Your task to perform on an android device: How much does a 3 bedroom apartment rent for in Chicago? Image 0: 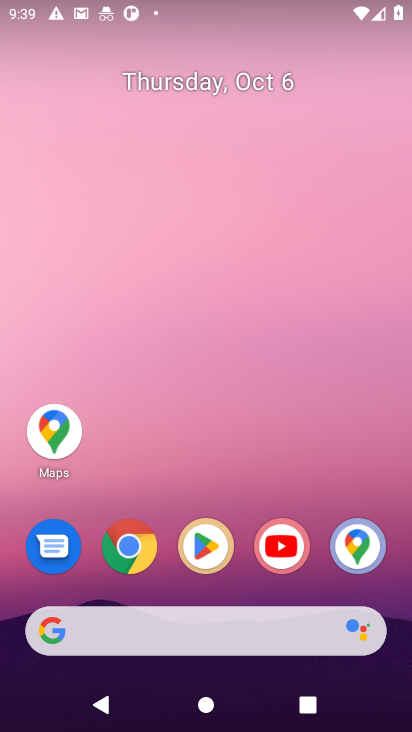
Step 0: click (127, 549)
Your task to perform on an android device: How much does a 3 bedroom apartment rent for in Chicago? Image 1: 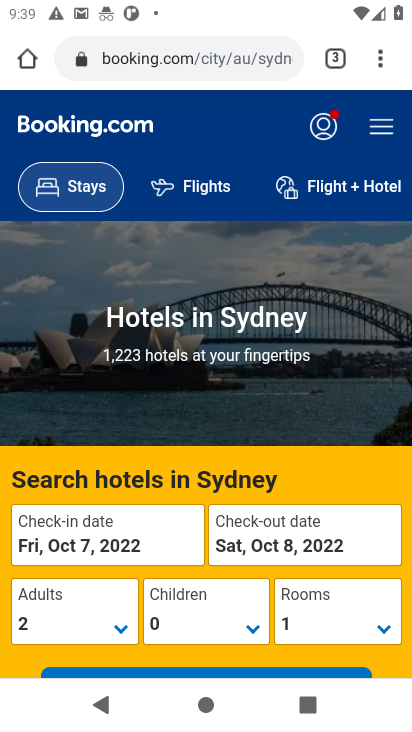
Step 1: drag from (144, 573) to (167, 187)
Your task to perform on an android device: How much does a 3 bedroom apartment rent for in Chicago? Image 2: 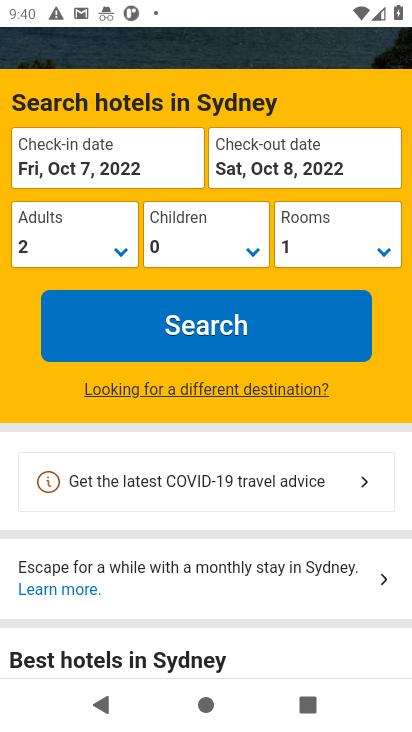
Step 2: drag from (187, 230) to (196, 507)
Your task to perform on an android device: How much does a 3 bedroom apartment rent for in Chicago? Image 3: 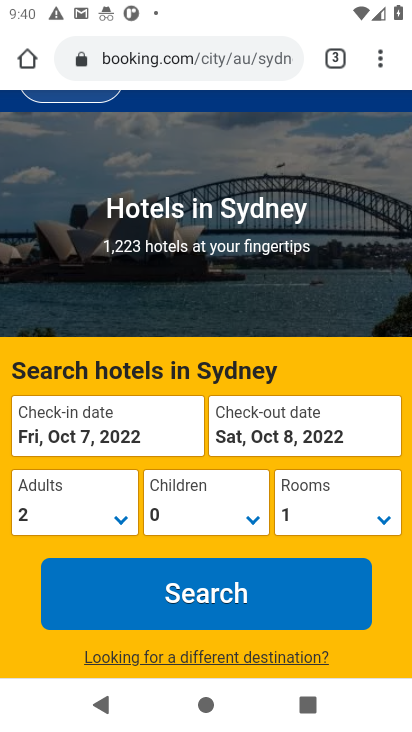
Step 3: drag from (304, 244) to (283, 508)
Your task to perform on an android device: How much does a 3 bedroom apartment rent for in Chicago? Image 4: 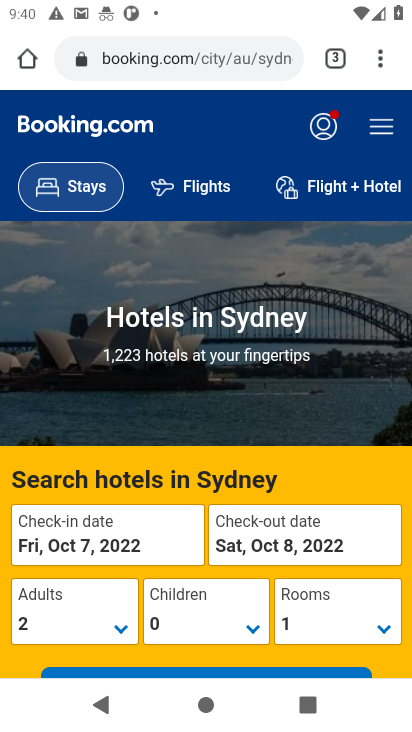
Step 4: click (226, 50)
Your task to perform on an android device: How much does a 3 bedroom apartment rent for in Chicago? Image 5: 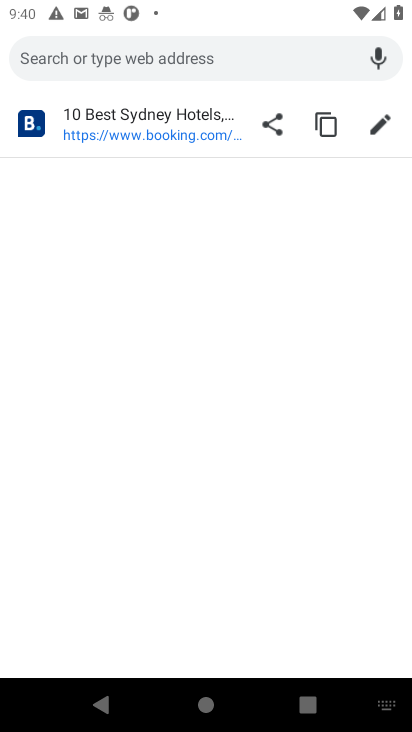
Step 5: type "How much does a 3 bedroom apartment rent for in Chicago?"
Your task to perform on an android device: How much does a 3 bedroom apartment rent for in Chicago? Image 6: 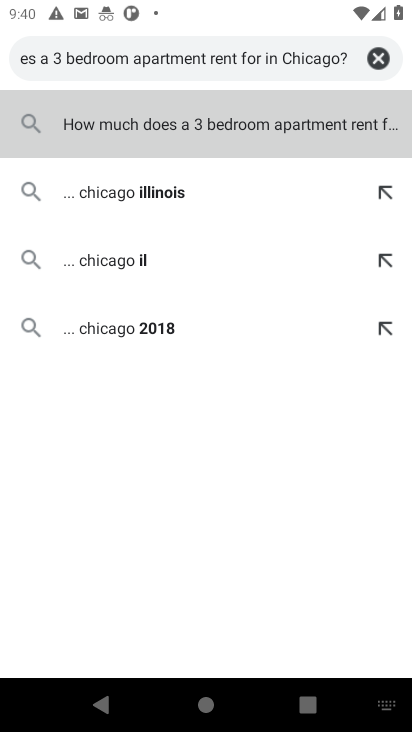
Step 6: click (130, 126)
Your task to perform on an android device: How much does a 3 bedroom apartment rent for in Chicago? Image 7: 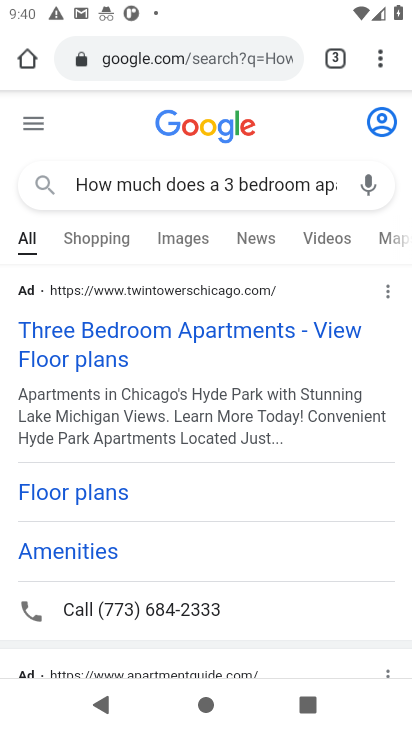
Step 7: click (52, 341)
Your task to perform on an android device: How much does a 3 bedroom apartment rent for in Chicago? Image 8: 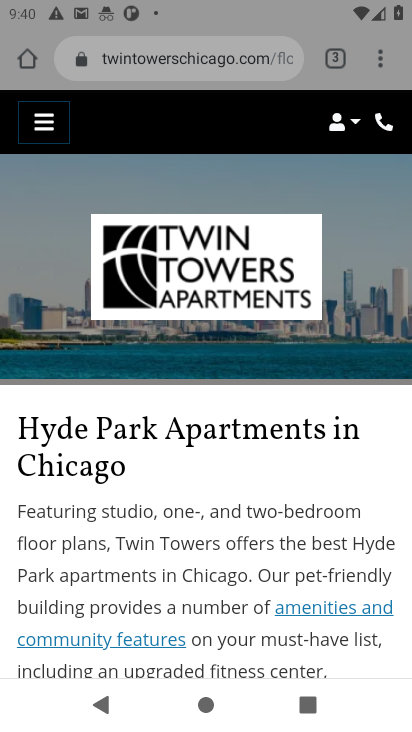
Step 8: task complete